Your task to perform on an android device: stop showing notifications on the lock screen Image 0: 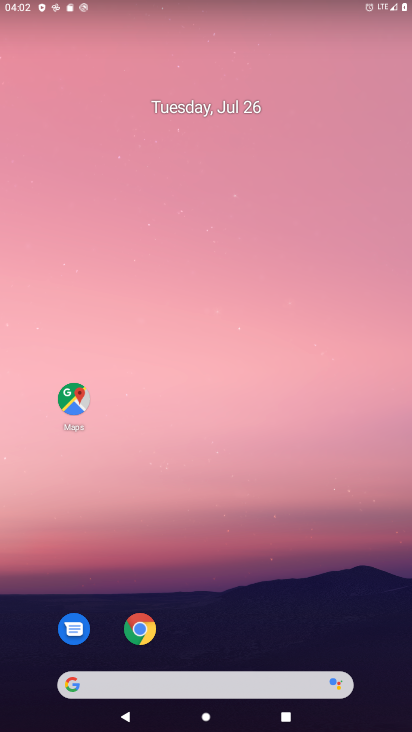
Step 0: drag from (259, 625) to (310, 103)
Your task to perform on an android device: stop showing notifications on the lock screen Image 1: 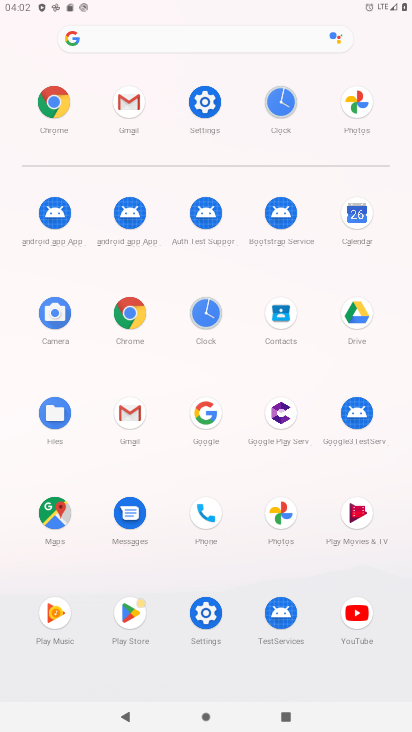
Step 1: click (210, 609)
Your task to perform on an android device: stop showing notifications on the lock screen Image 2: 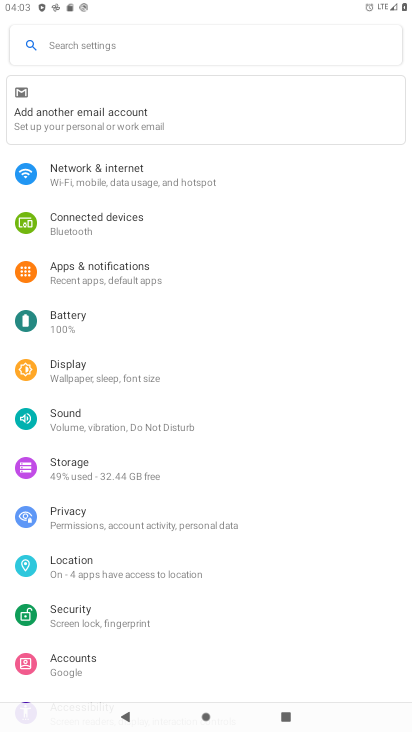
Step 2: drag from (173, 620) to (170, 254)
Your task to perform on an android device: stop showing notifications on the lock screen Image 3: 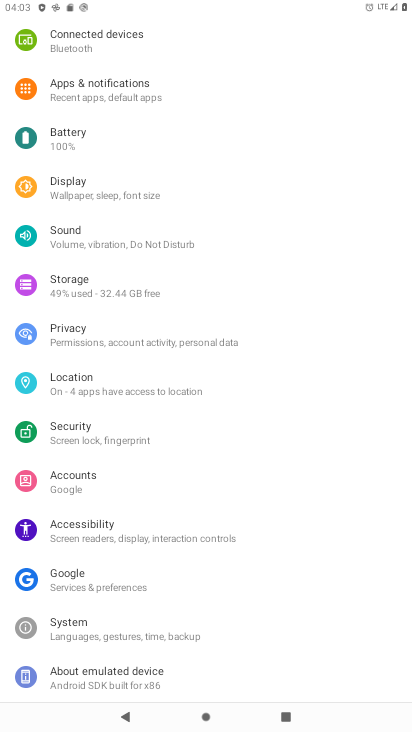
Step 3: click (122, 85)
Your task to perform on an android device: stop showing notifications on the lock screen Image 4: 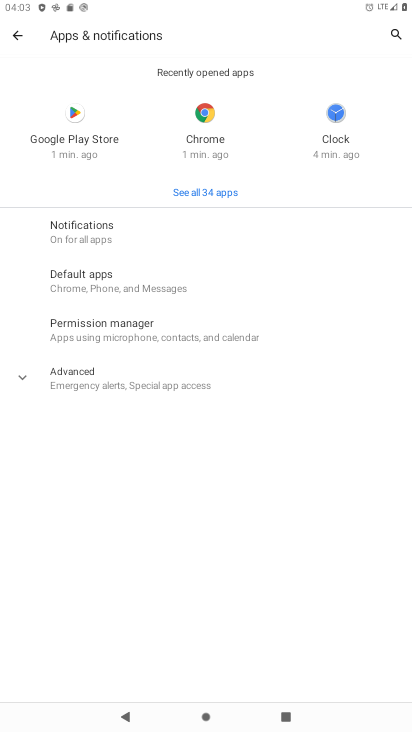
Step 4: click (89, 218)
Your task to perform on an android device: stop showing notifications on the lock screen Image 5: 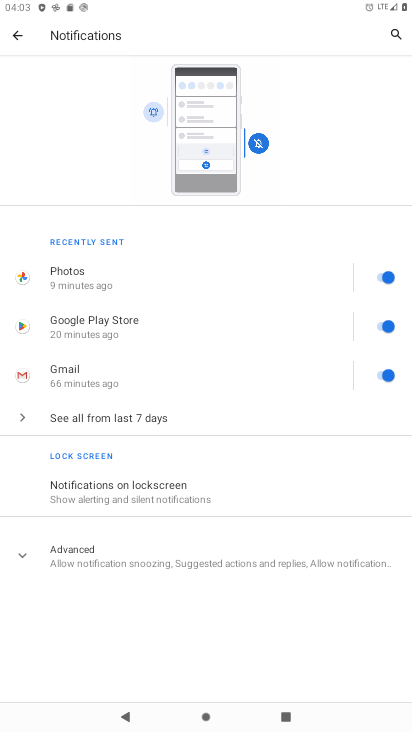
Step 5: click (138, 487)
Your task to perform on an android device: stop showing notifications on the lock screen Image 6: 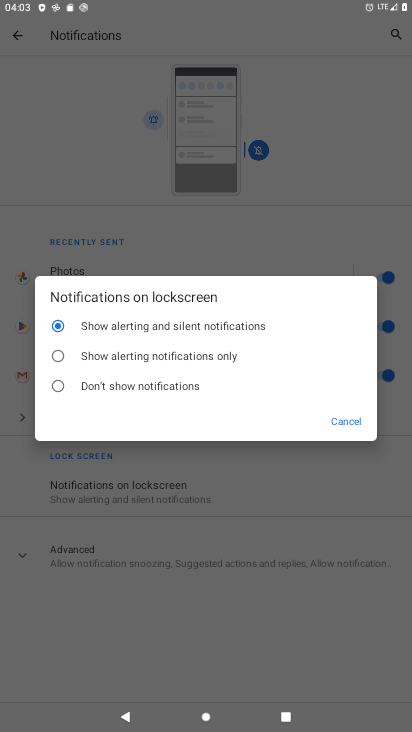
Step 6: click (138, 378)
Your task to perform on an android device: stop showing notifications on the lock screen Image 7: 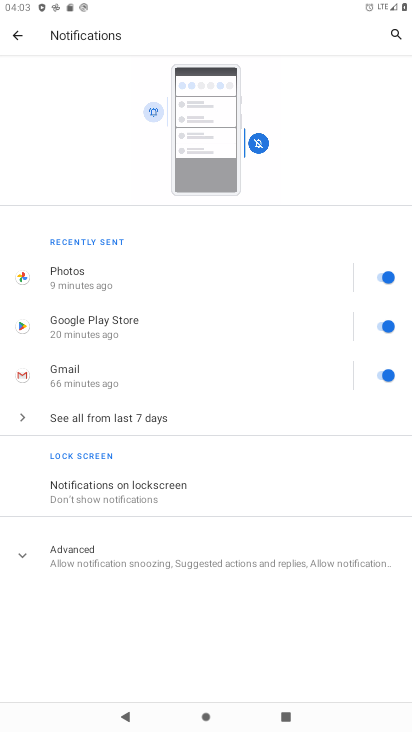
Step 7: task complete